Your task to perform on an android device: Open eBay Image 0: 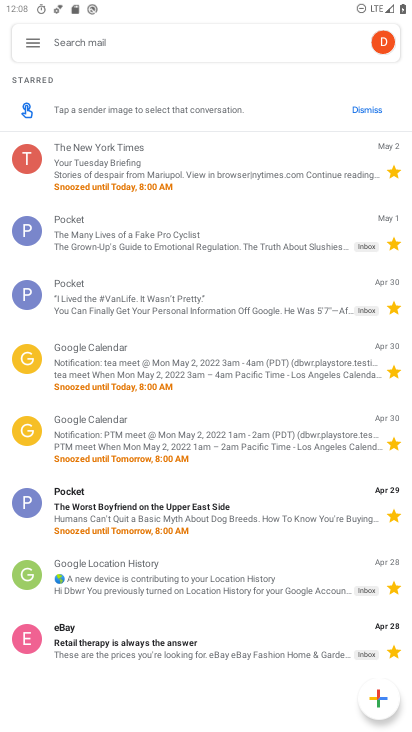
Step 0: press home button
Your task to perform on an android device: Open eBay Image 1: 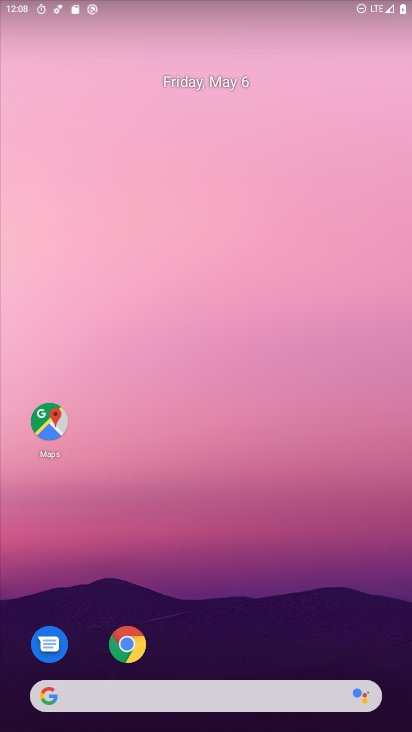
Step 1: drag from (331, 622) to (335, 138)
Your task to perform on an android device: Open eBay Image 2: 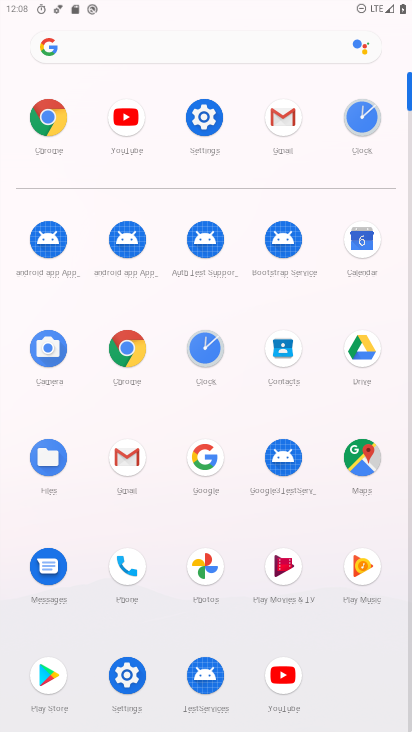
Step 2: click (135, 359)
Your task to perform on an android device: Open eBay Image 3: 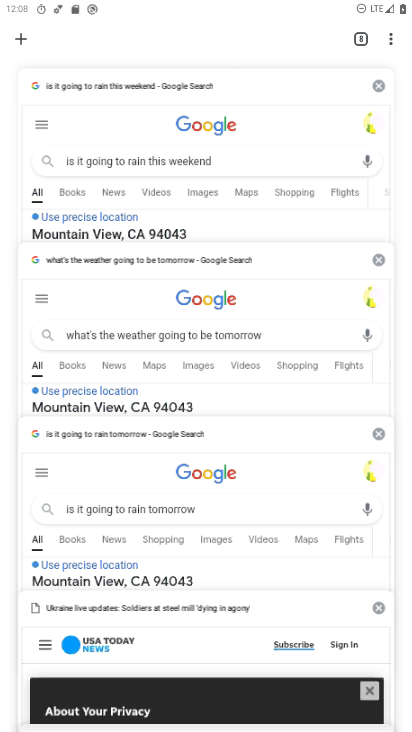
Step 3: click (17, 34)
Your task to perform on an android device: Open eBay Image 4: 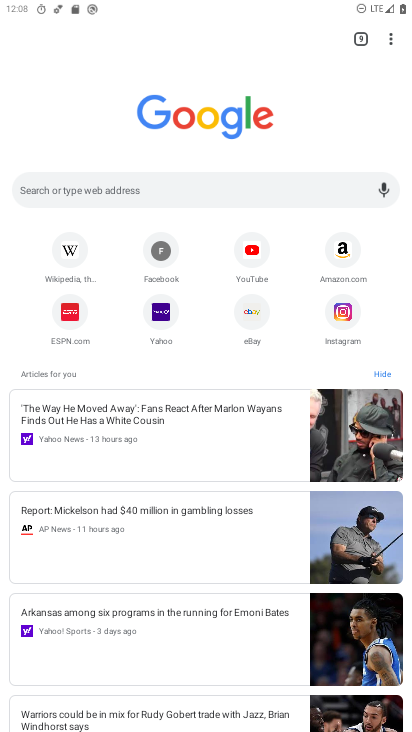
Step 4: click (256, 200)
Your task to perform on an android device: Open eBay Image 5: 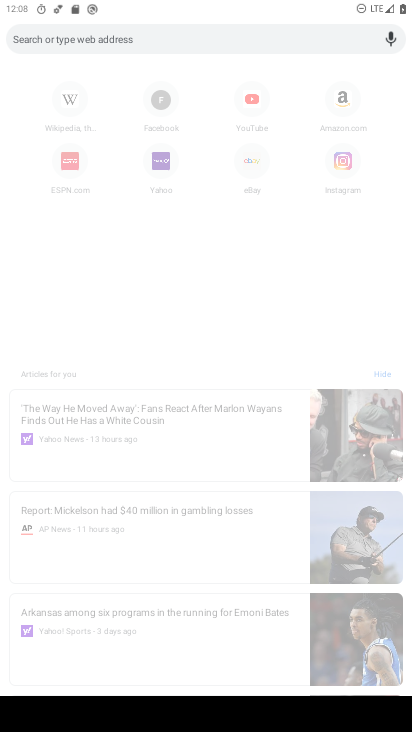
Step 5: type "ebay"
Your task to perform on an android device: Open eBay Image 6: 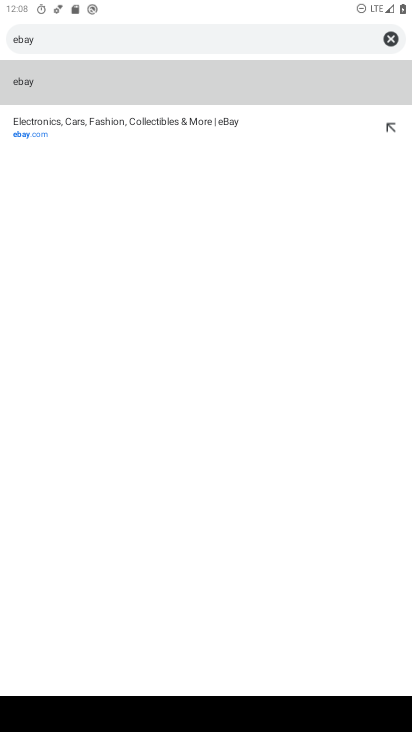
Step 6: click (42, 89)
Your task to perform on an android device: Open eBay Image 7: 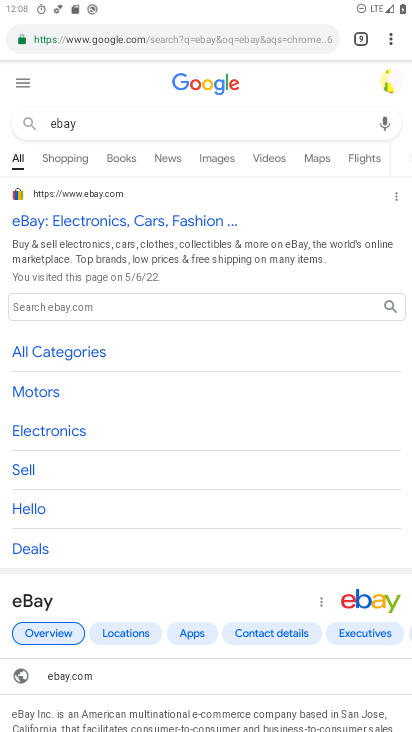
Step 7: click (118, 225)
Your task to perform on an android device: Open eBay Image 8: 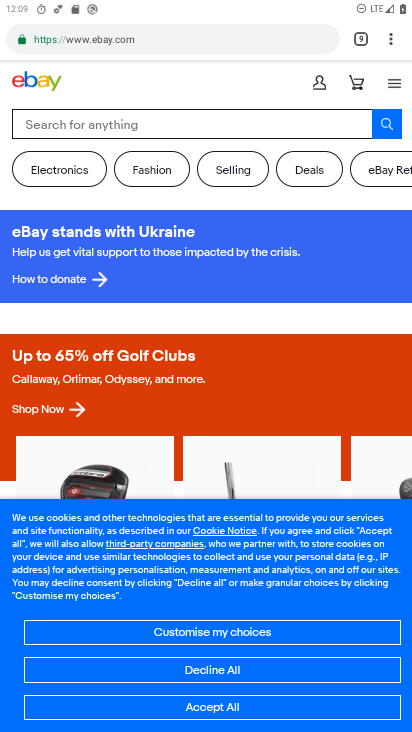
Step 8: task complete